Your task to perform on an android device: open a bookmark in the chrome app Image 0: 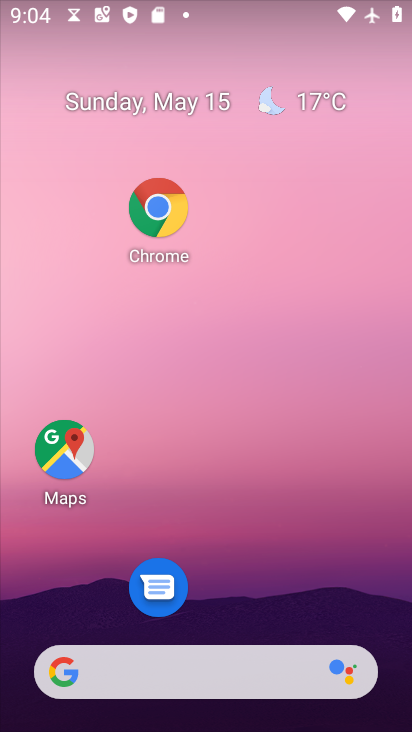
Step 0: drag from (380, 645) to (175, 224)
Your task to perform on an android device: open a bookmark in the chrome app Image 1: 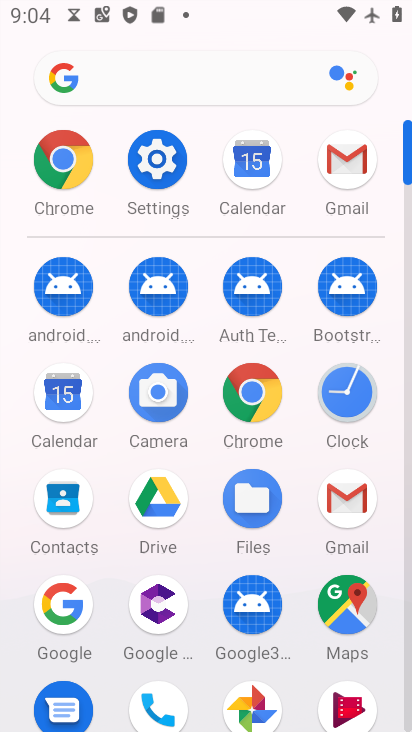
Step 1: click (255, 398)
Your task to perform on an android device: open a bookmark in the chrome app Image 2: 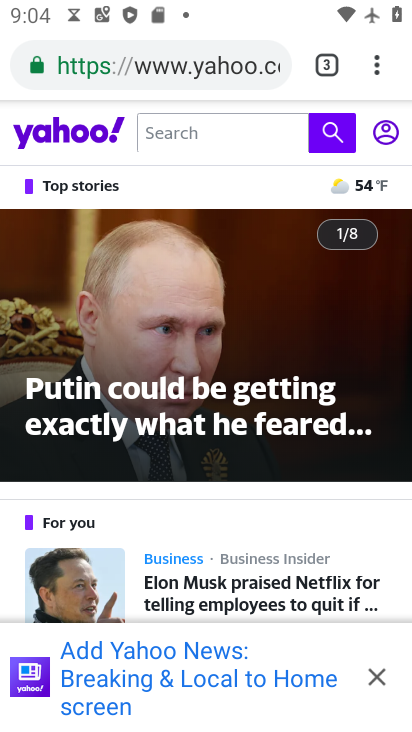
Step 2: click (370, 62)
Your task to perform on an android device: open a bookmark in the chrome app Image 3: 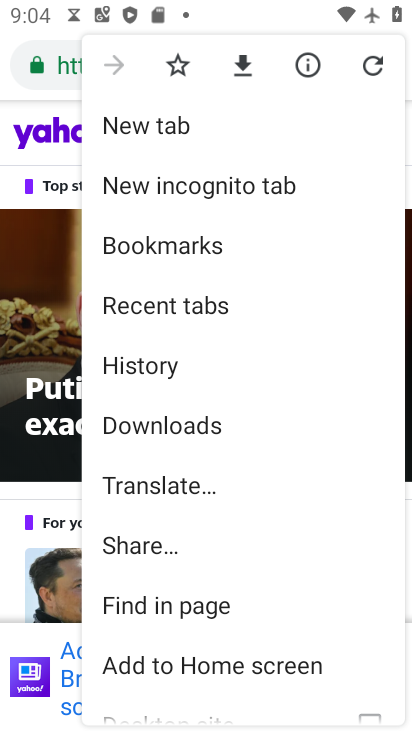
Step 3: click (182, 255)
Your task to perform on an android device: open a bookmark in the chrome app Image 4: 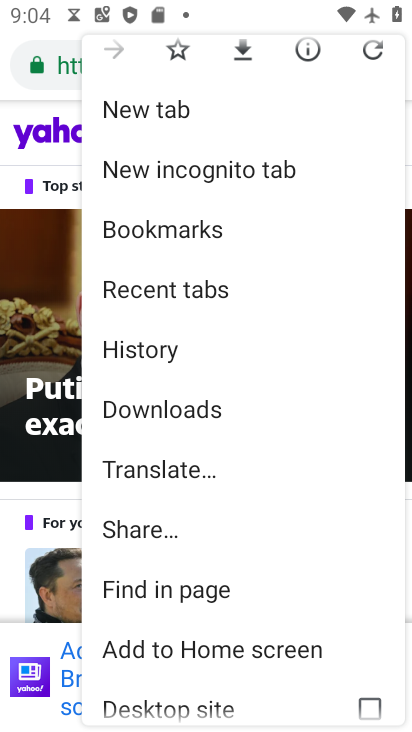
Step 4: click (170, 235)
Your task to perform on an android device: open a bookmark in the chrome app Image 5: 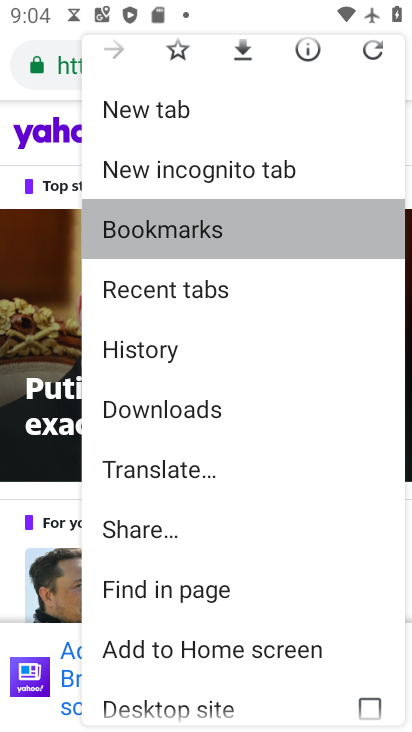
Step 5: click (168, 230)
Your task to perform on an android device: open a bookmark in the chrome app Image 6: 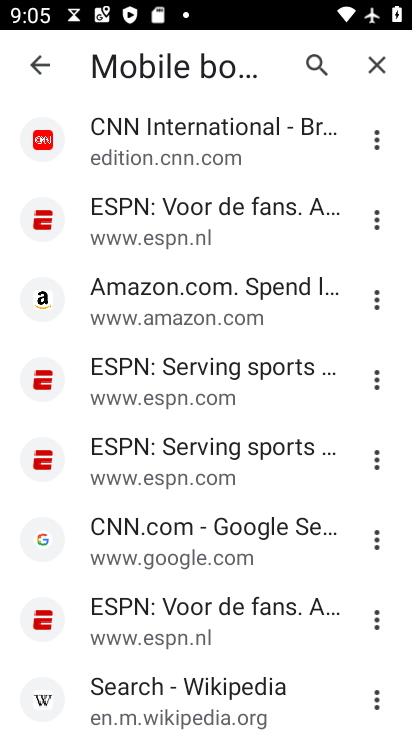
Step 6: task complete